Your task to perform on an android device: Open Google Maps Image 0: 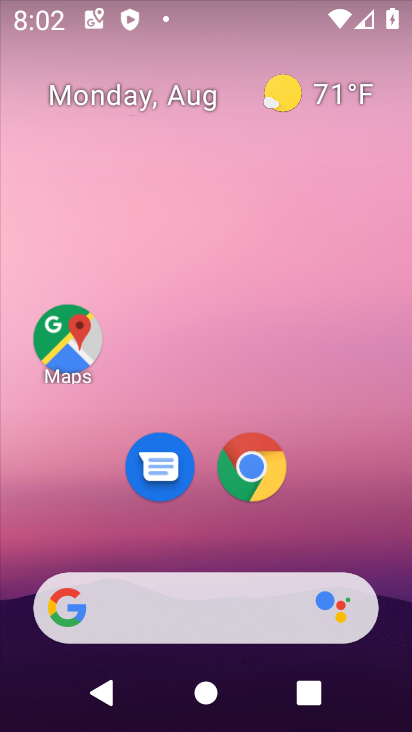
Step 0: press home button
Your task to perform on an android device: Open Google Maps Image 1: 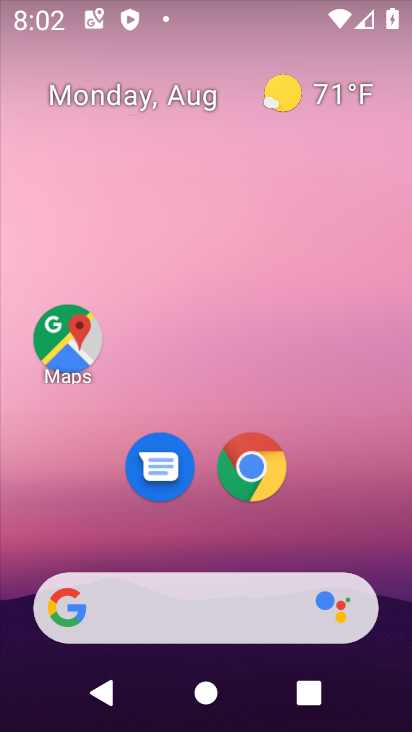
Step 1: drag from (375, 500) to (365, 193)
Your task to perform on an android device: Open Google Maps Image 2: 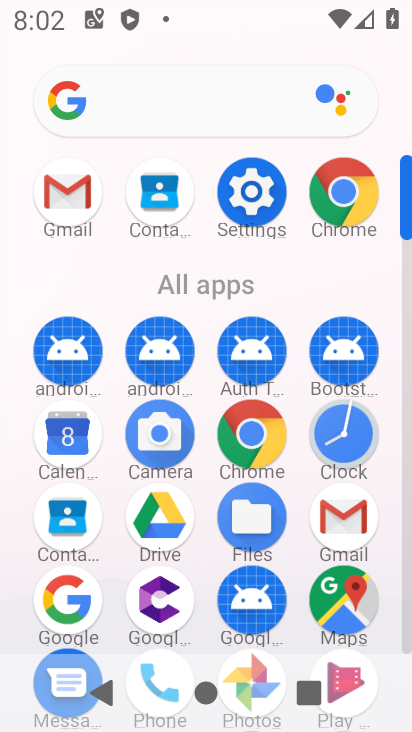
Step 2: click (351, 603)
Your task to perform on an android device: Open Google Maps Image 3: 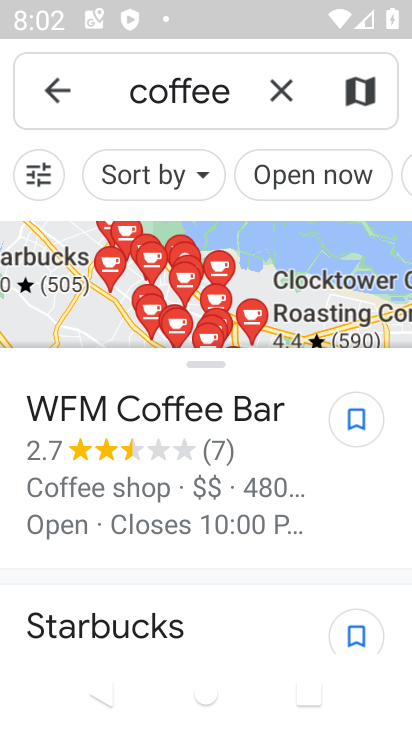
Step 3: task complete